Your task to perform on an android device: turn off location history Image 0: 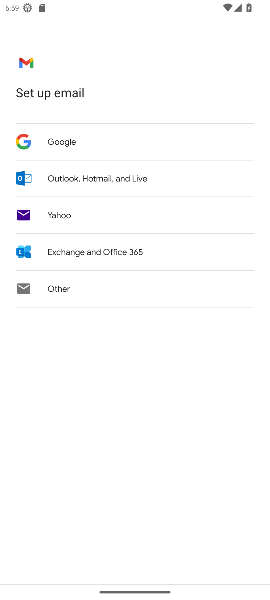
Step 0: press home button
Your task to perform on an android device: turn off location history Image 1: 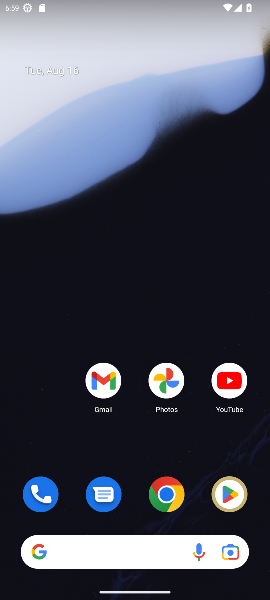
Step 1: drag from (32, 402) to (103, 71)
Your task to perform on an android device: turn off location history Image 2: 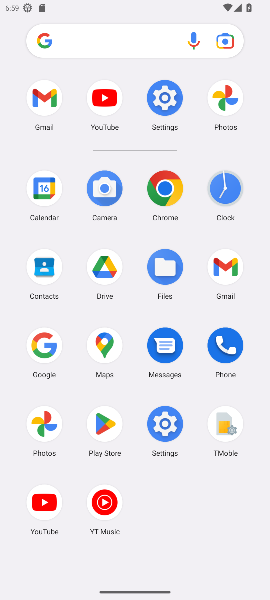
Step 2: click (171, 424)
Your task to perform on an android device: turn off location history Image 3: 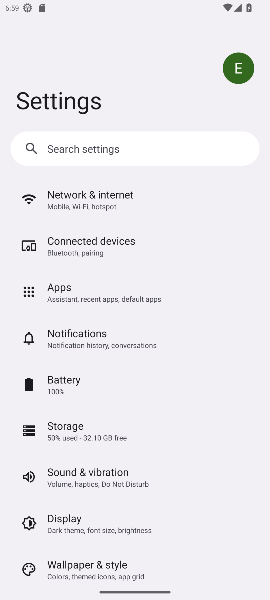
Step 3: task complete